Your task to perform on an android device: add a contact Image 0: 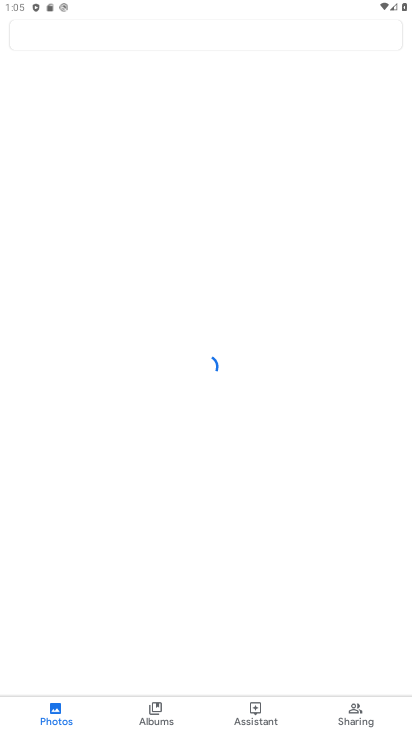
Step 0: press home button
Your task to perform on an android device: add a contact Image 1: 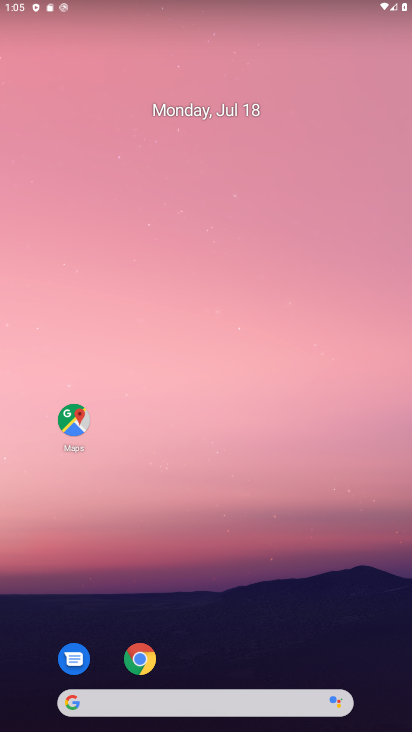
Step 1: drag from (264, 558) to (246, 59)
Your task to perform on an android device: add a contact Image 2: 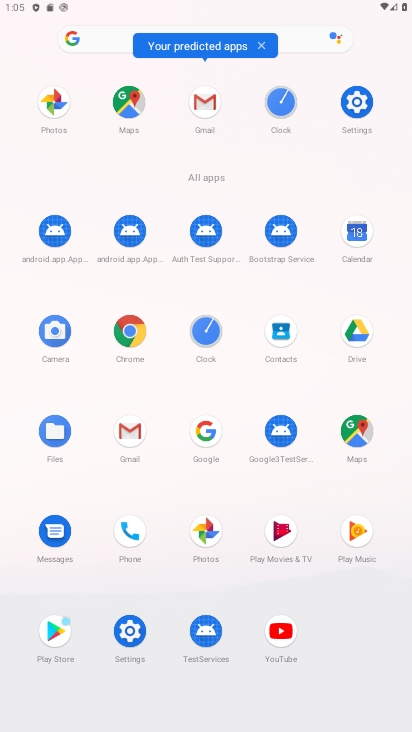
Step 2: click (271, 339)
Your task to perform on an android device: add a contact Image 3: 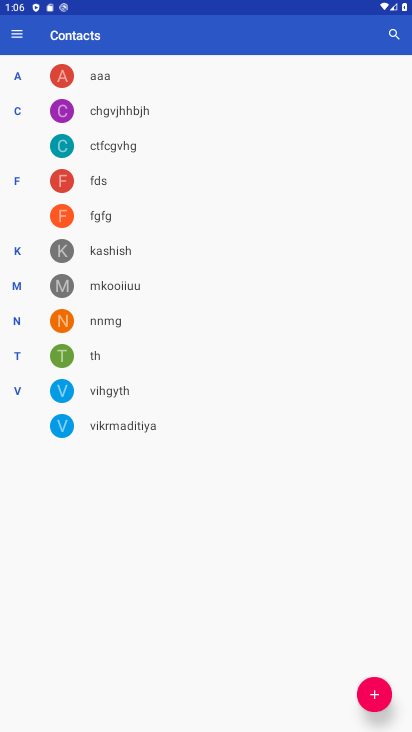
Step 3: click (375, 691)
Your task to perform on an android device: add a contact Image 4: 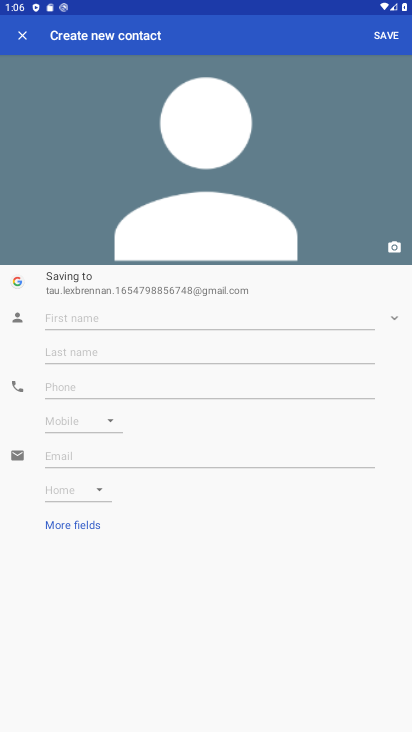
Step 4: click (177, 306)
Your task to perform on an android device: add a contact Image 5: 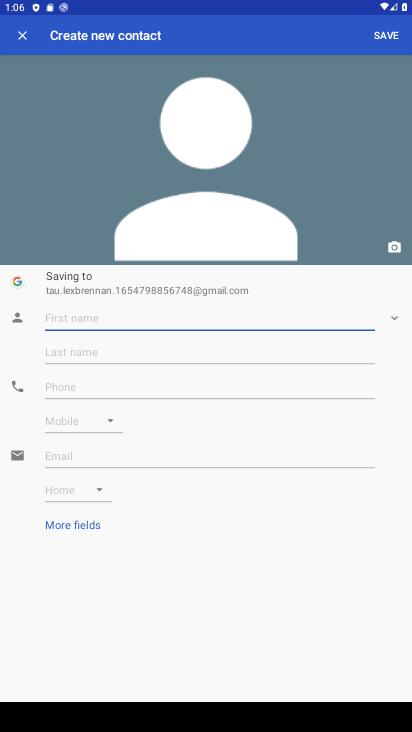
Step 5: type "mk"
Your task to perform on an android device: add a contact Image 6: 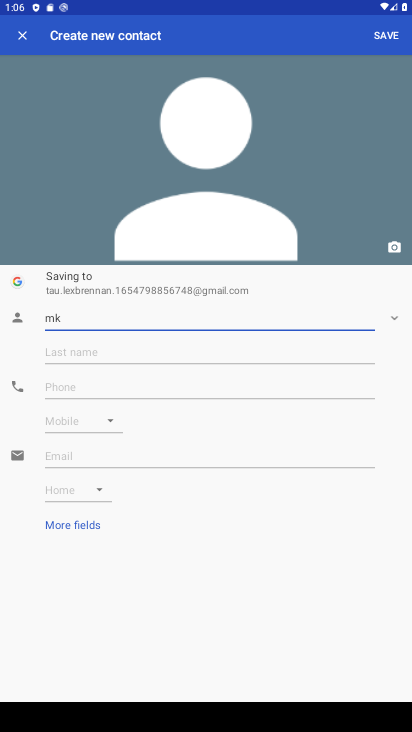
Step 6: click (327, 376)
Your task to perform on an android device: add a contact Image 7: 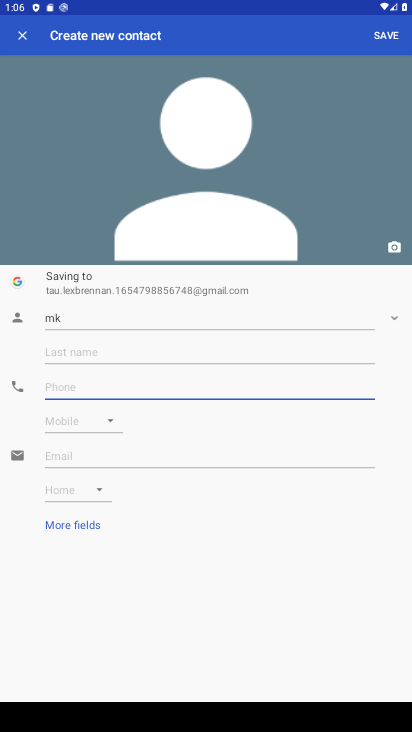
Step 7: type "789098767"
Your task to perform on an android device: add a contact Image 8: 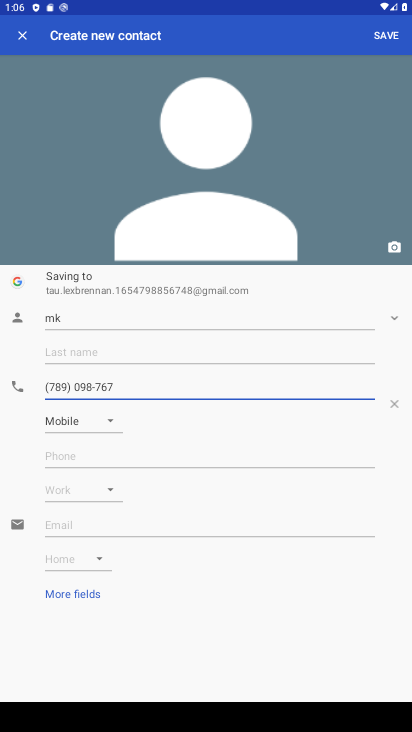
Step 8: click (390, 33)
Your task to perform on an android device: add a contact Image 9: 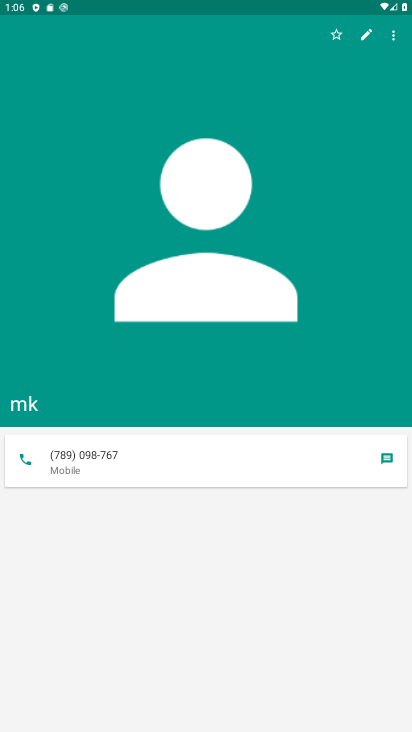
Step 9: task complete